Your task to perform on an android device: Go to wifi settings Image 0: 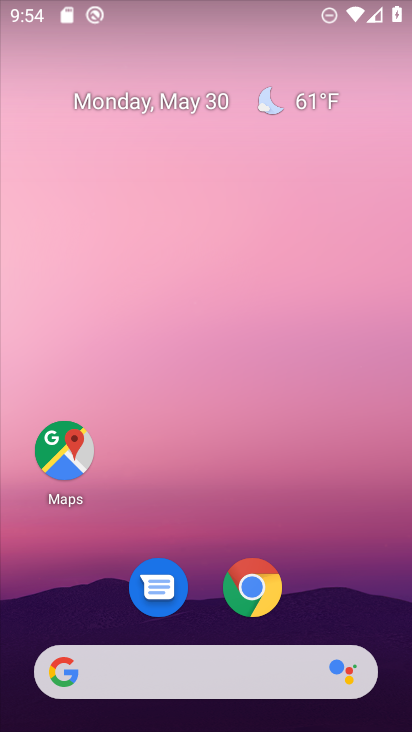
Step 0: drag from (208, 658) to (164, 135)
Your task to perform on an android device: Go to wifi settings Image 1: 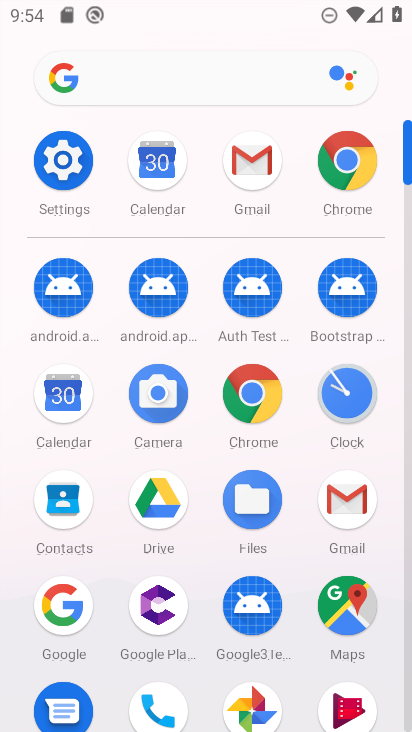
Step 1: click (52, 179)
Your task to perform on an android device: Go to wifi settings Image 2: 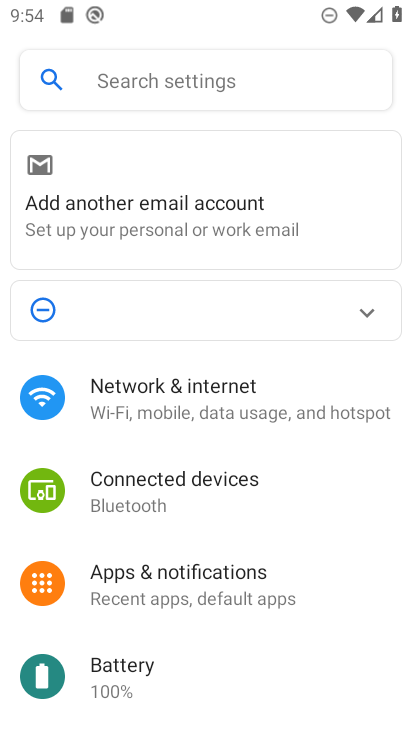
Step 2: click (204, 397)
Your task to perform on an android device: Go to wifi settings Image 3: 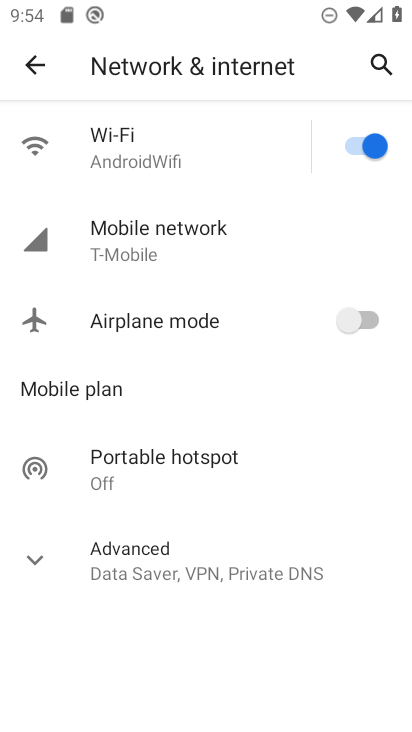
Step 3: click (138, 170)
Your task to perform on an android device: Go to wifi settings Image 4: 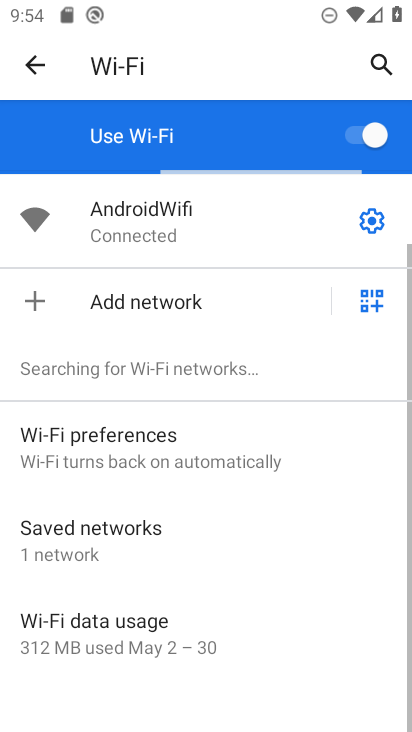
Step 4: task complete